Your task to perform on an android device: What's the weather going to be this weekend? Image 0: 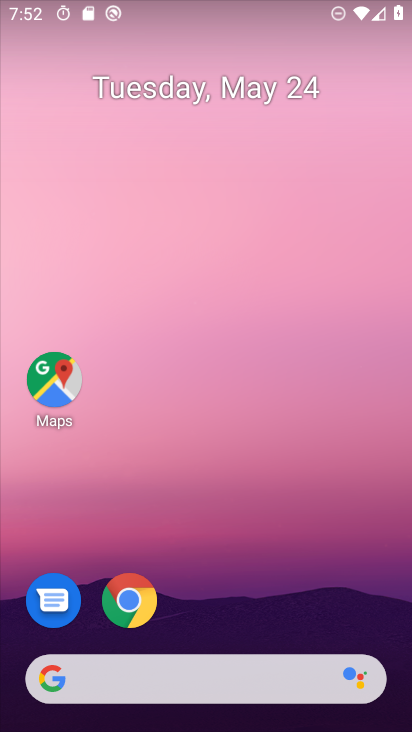
Step 0: click (162, 690)
Your task to perform on an android device: What's the weather going to be this weekend? Image 1: 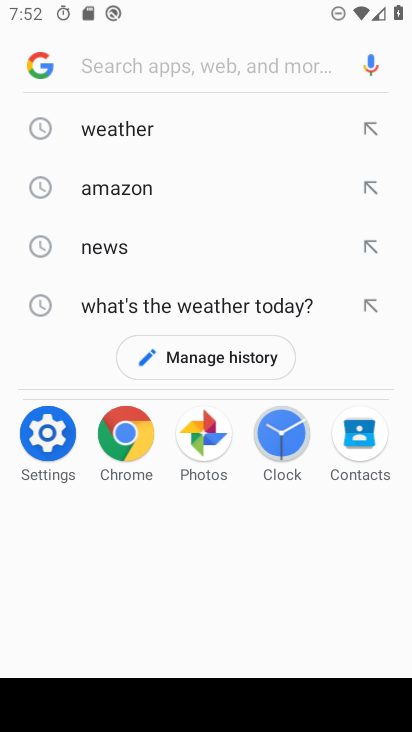
Step 1: click (116, 125)
Your task to perform on an android device: What's the weather going to be this weekend? Image 2: 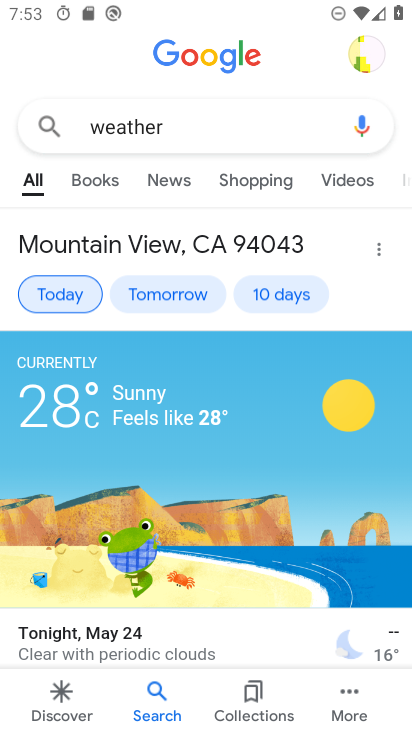
Step 2: click (276, 292)
Your task to perform on an android device: What's the weather going to be this weekend? Image 3: 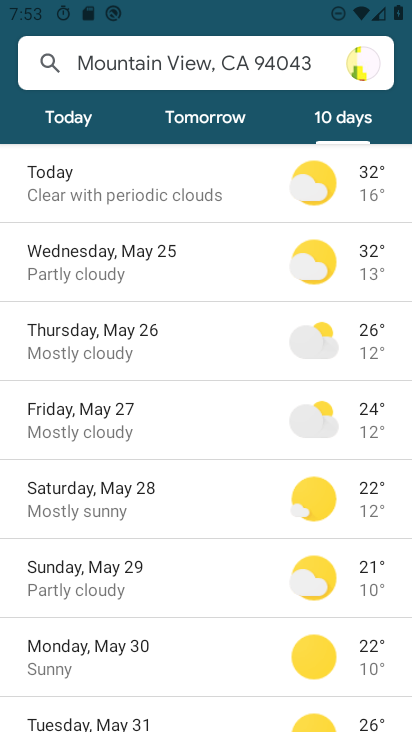
Step 3: task complete